Your task to perform on an android device: Go to display settings Image 0: 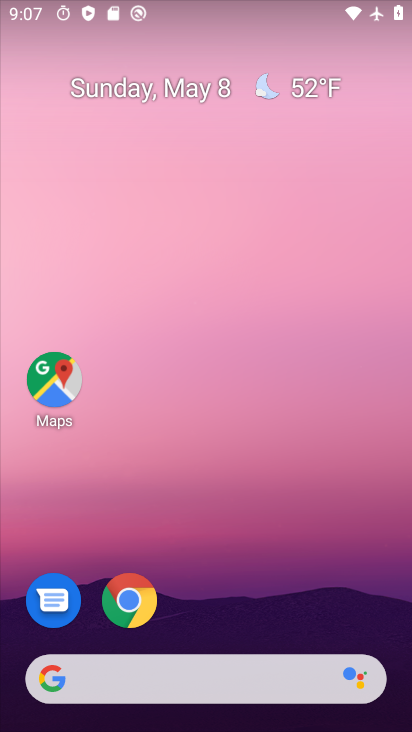
Step 0: drag from (223, 615) to (223, 124)
Your task to perform on an android device: Go to display settings Image 1: 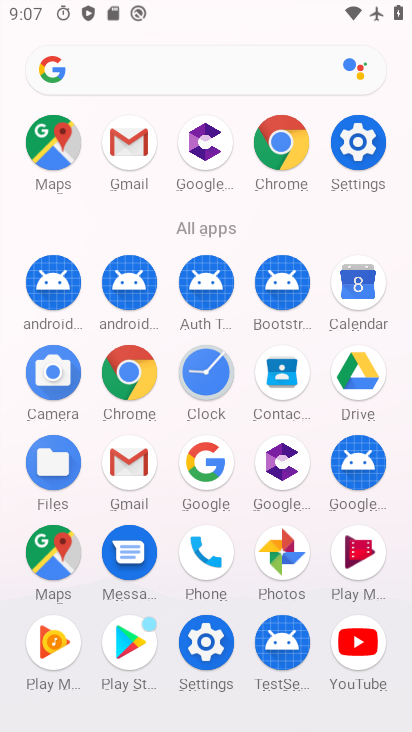
Step 1: click (371, 158)
Your task to perform on an android device: Go to display settings Image 2: 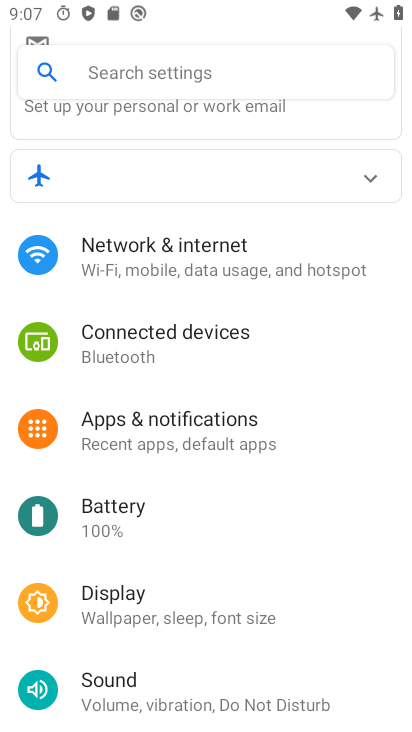
Step 2: click (155, 607)
Your task to perform on an android device: Go to display settings Image 3: 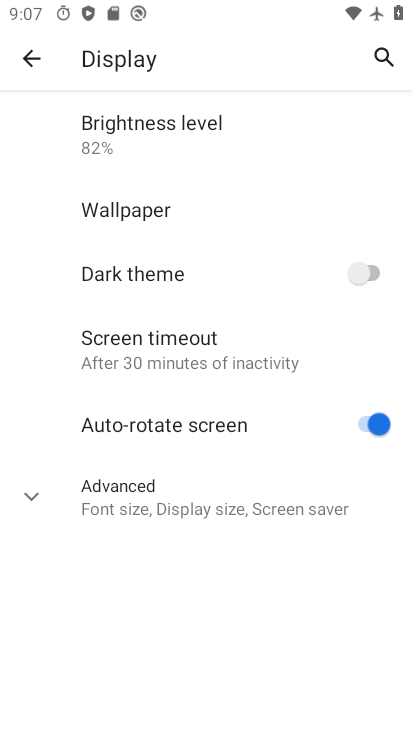
Step 3: task complete